Your task to perform on an android device: Open ESPN.com Image 0: 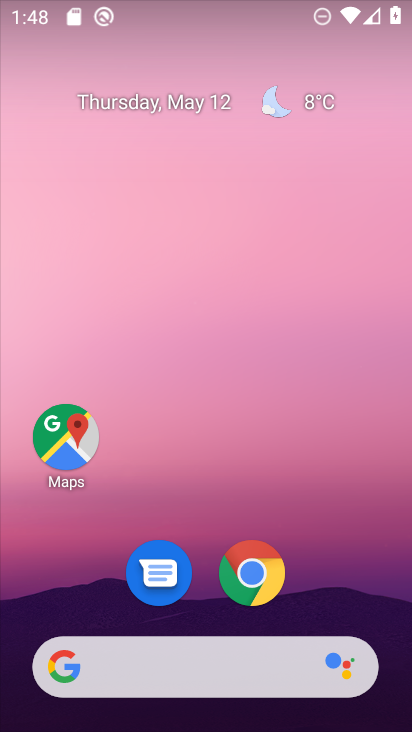
Step 0: drag from (373, 645) to (87, 112)
Your task to perform on an android device: Open ESPN.com Image 1: 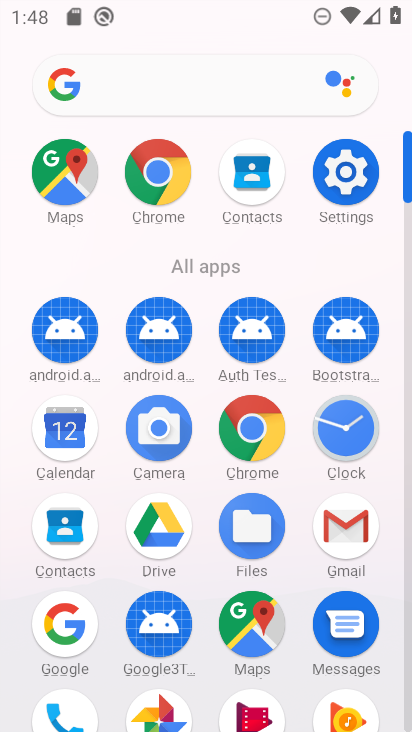
Step 1: click (149, 165)
Your task to perform on an android device: Open ESPN.com Image 2: 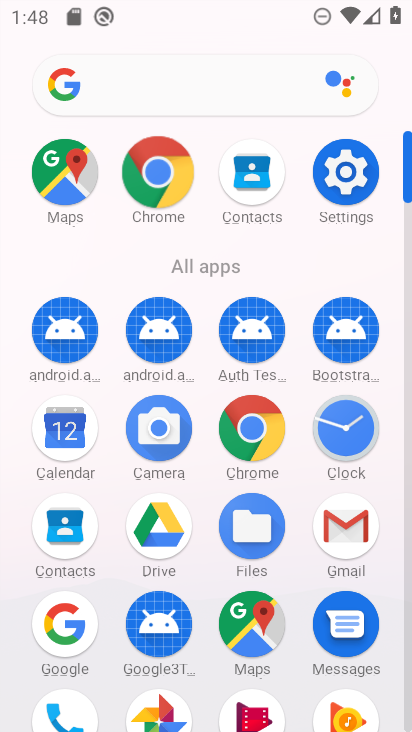
Step 2: click (149, 165)
Your task to perform on an android device: Open ESPN.com Image 3: 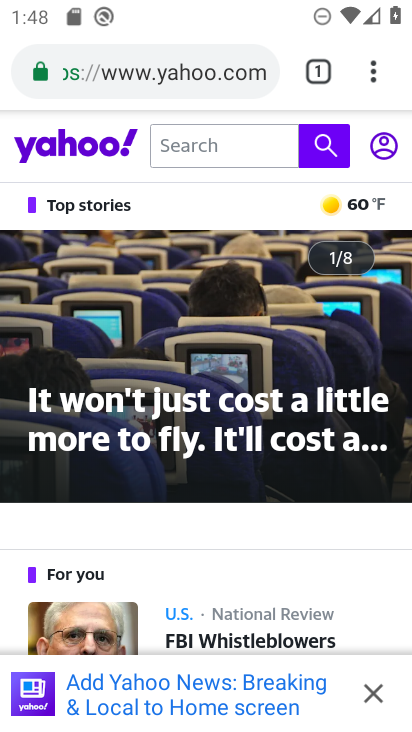
Step 3: drag from (369, 73) to (120, 152)
Your task to perform on an android device: Open ESPN.com Image 4: 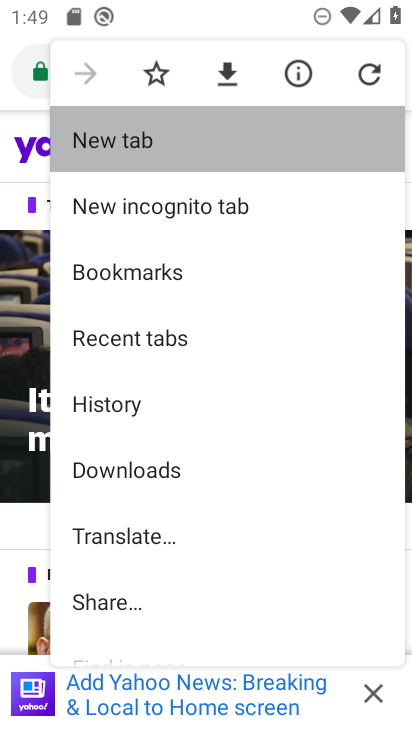
Step 4: click (120, 152)
Your task to perform on an android device: Open ESPN.com Image 5: 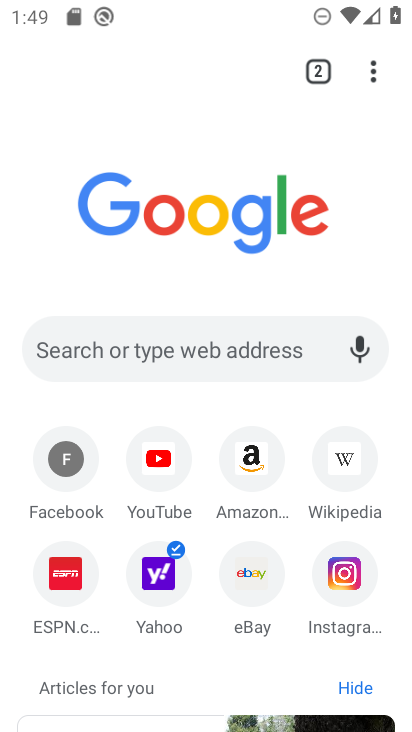
Step 5: click (70, 575)
Your task to perform on an android device: Open ESPN.com Image 6: 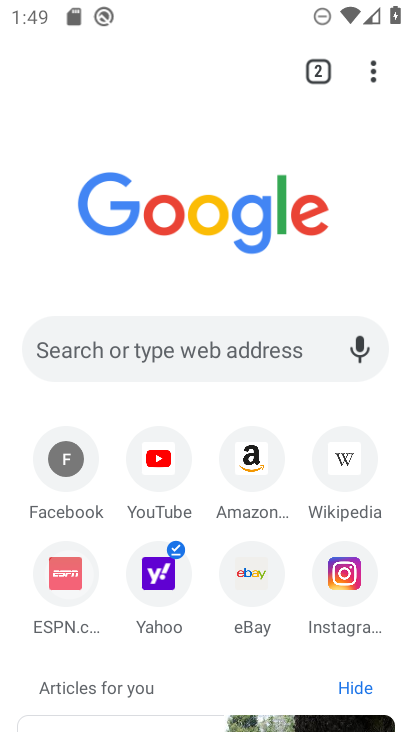
Step 6: click (70, 575)
Your task to perform on an android device: Open ESPN.com Image 7: 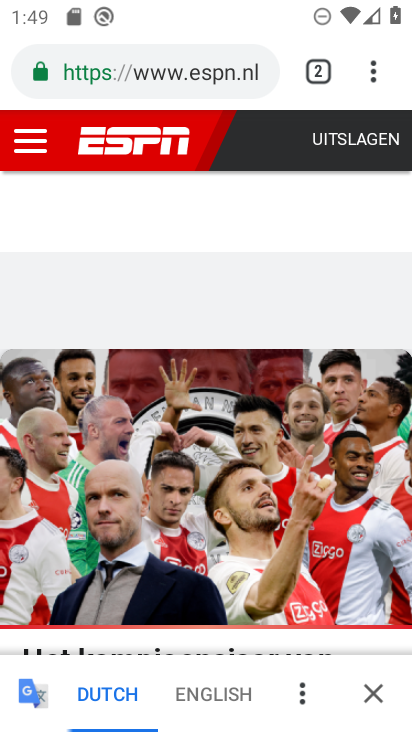
Step 7: task complete